Your task to perform on an android device: Search for sushi restaurants on Maps Image 0: 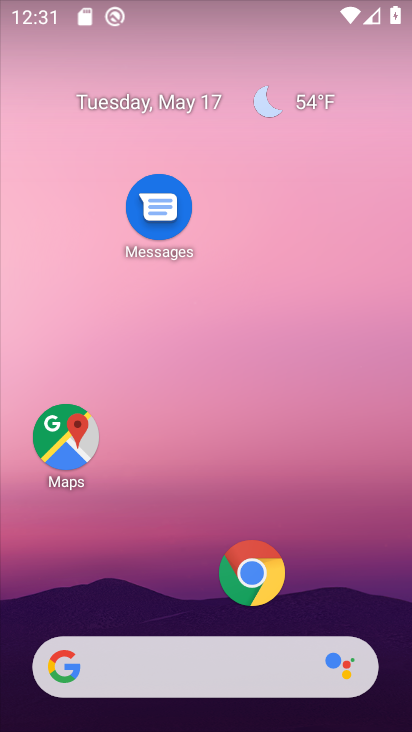
Step 0: click (250, 570)
Your task to perform on an android device: Search for sushi restaurants on Maps Image 1: 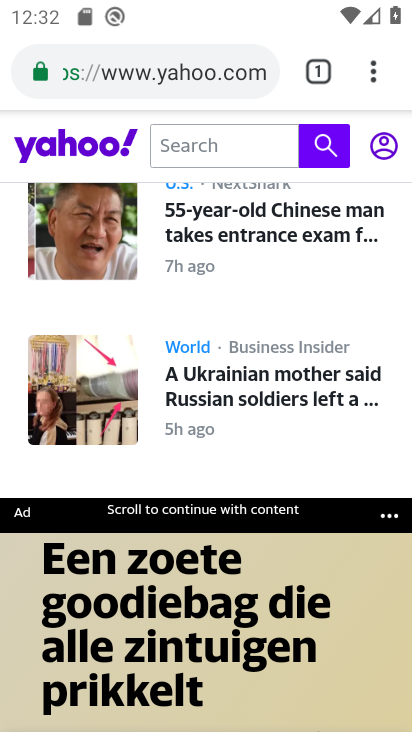
Step 1: press home button
Your task to perform on an android device: Search for sushi restaurants on Maps Image 2: 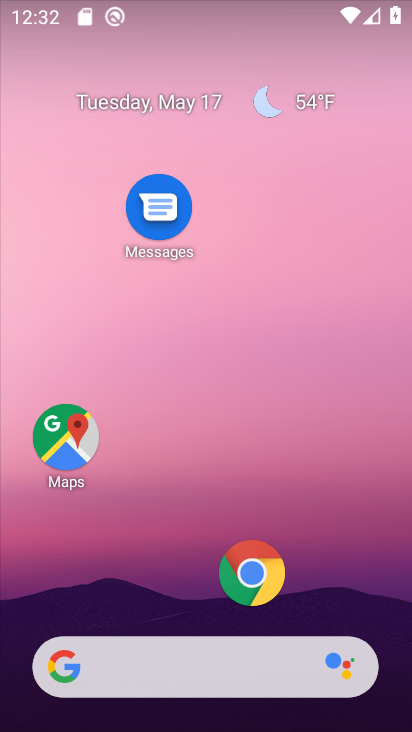
Step 2: drag from (183, 597) to (220, 66)
Your task to perform on an android device: Search for sushi restaurants on Maps Image 3: 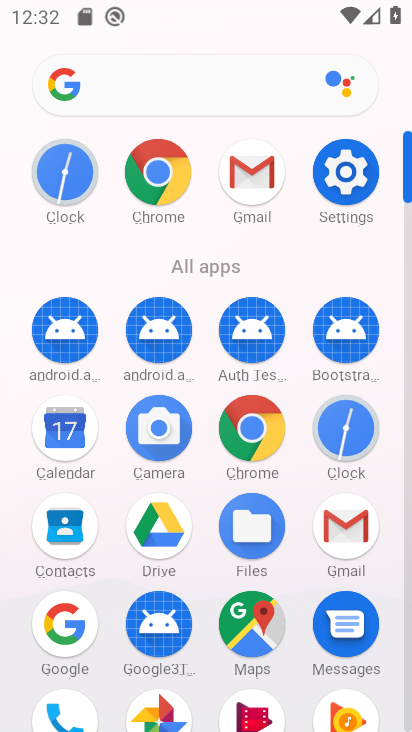
Step 3: click (247, 619)
Your task to perform on an android device: Search for sushi restaurants on Maps Image 4: 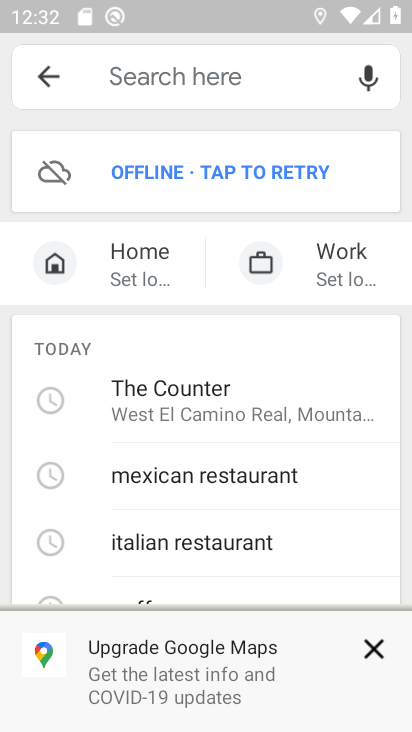
Step 4: click (133, 64)
Your task to perform on an android device: Search for sushi restaurants on Maps Image 5: 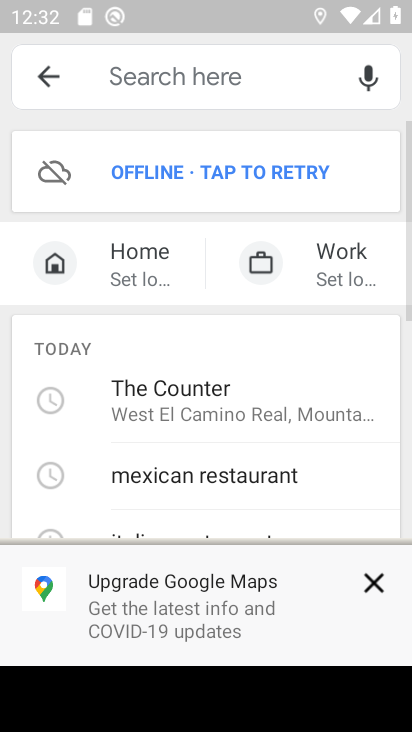
Step 5: click (373, 585)
Your task to perform on an android device: Search for sushi restaurants on Maps Image 6: 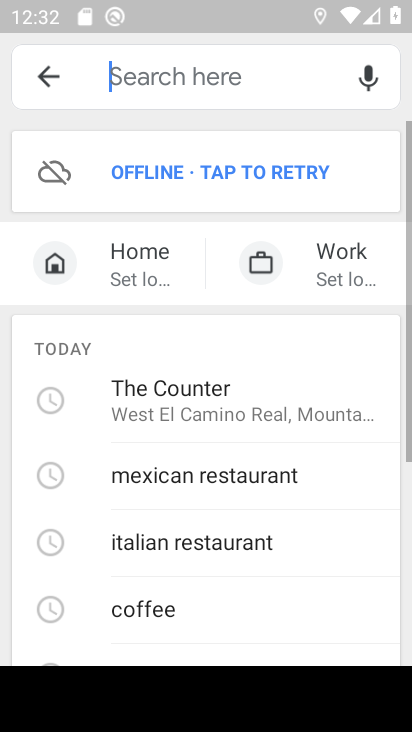
Step 6: drag from (166, 601) to (163, 185)
Your task to perform on an android device: Search for sushi restaurants on Maps Image 7: 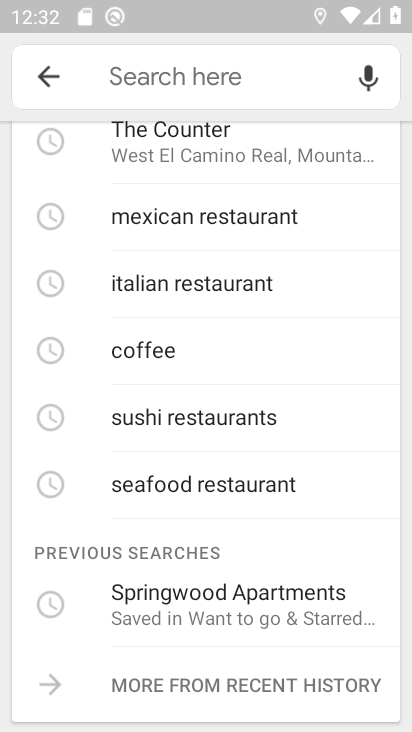
Step 7: click (167, 421)
Your task to perform on an android device: Search for sushi restaurants on Maps Image 8: 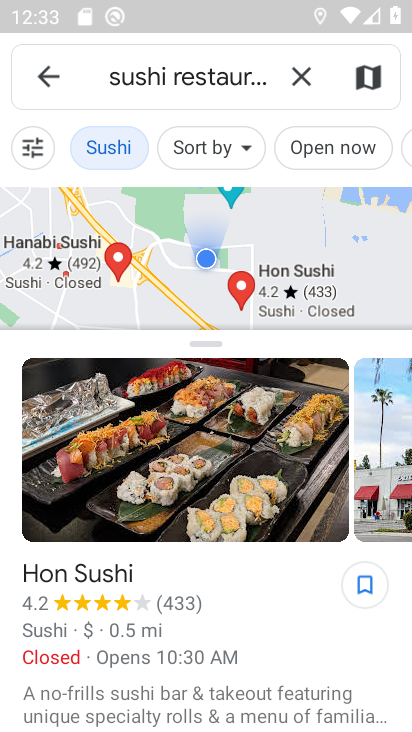
Step 8: task complete